Your task to perform on an android device: Open maps Image 0: 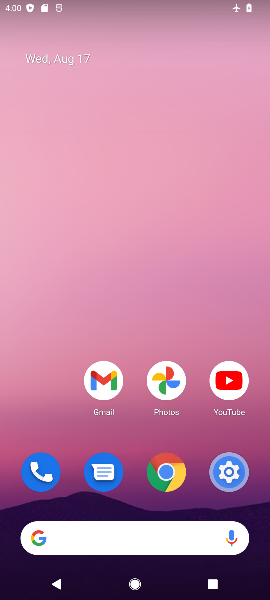
Step 0: drag from (136, 435) to (164, 36)
Your task to perform on an android device: Open maps Image 1: 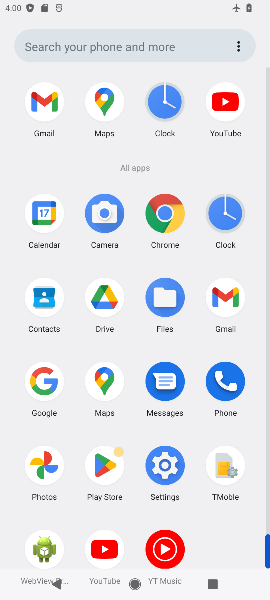
Step 1: click (105, 107)
Your task to perform on an android device: Open maps Image 2: 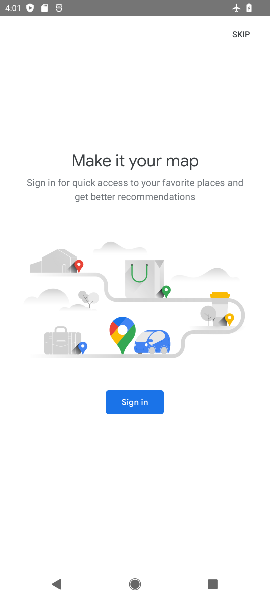
Step 2: task complete